Your task to perform on an android device: set default search engine in the chrome app Image 0: 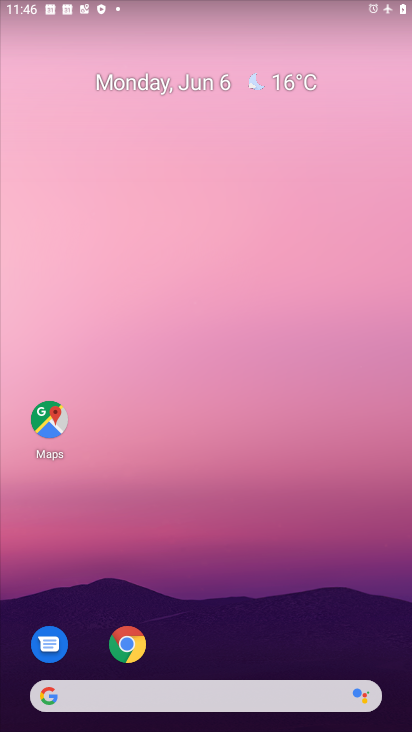
Step 0: drag from (264, 574) to (284, 111)
Your task to perform on an android device: set default search engine in the chrome app Image 1: 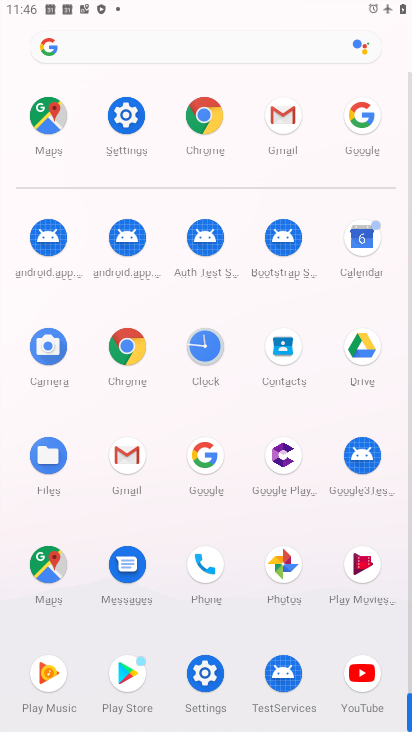
Step 1: click (136, 360)
Your task to perform on an android device: set default search engine in the chrome app Image 2: 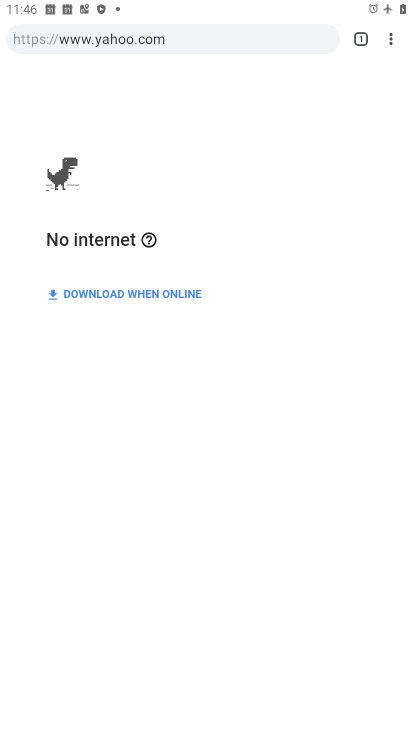
Step 2: click (261, 386)
Your task to perform on an android device: set default search engine in the chrome app Image 3: 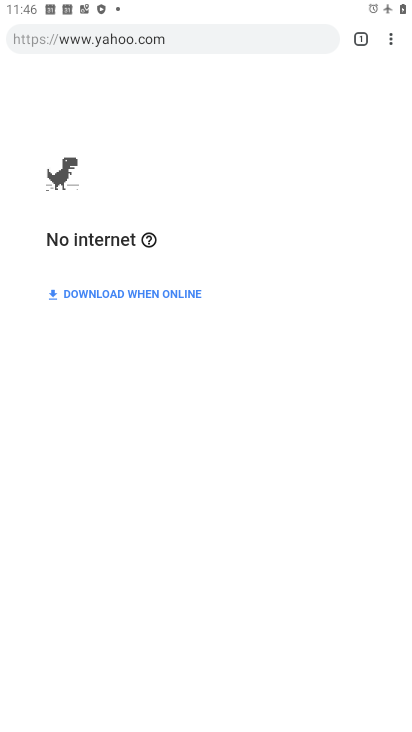
Step 3: click (392, 48)
Your task to perform on an android device: set default search engine in the chrome app Image 4: 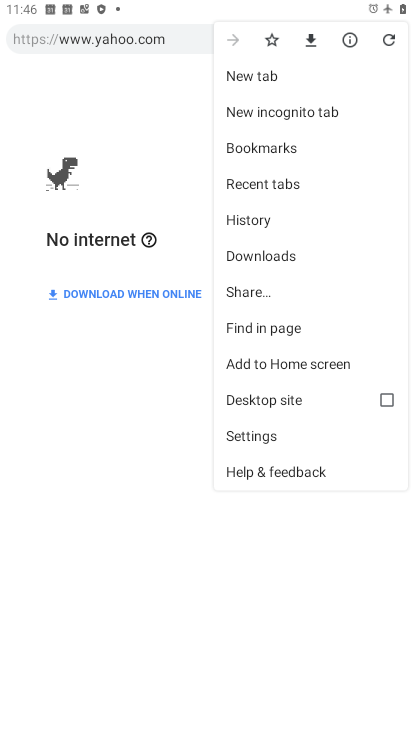
Step 4: click (271, 436)
Your task to perform on an android device: set default search engine in the chrome app Image 5: 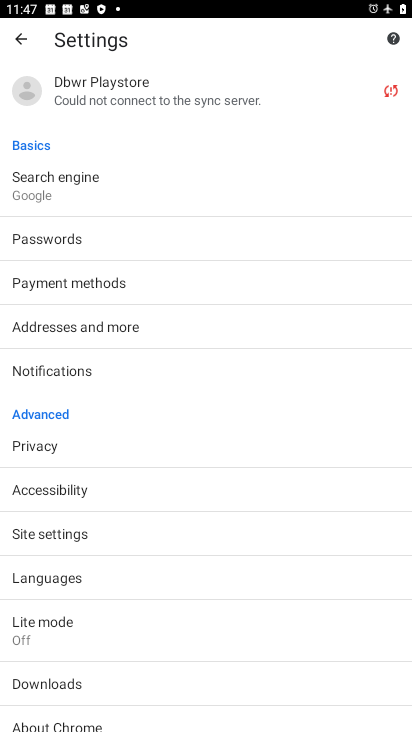
Step 5: click (95, 183)
Your task to perform on an android device: set default search engine in the chrome app Image 6: 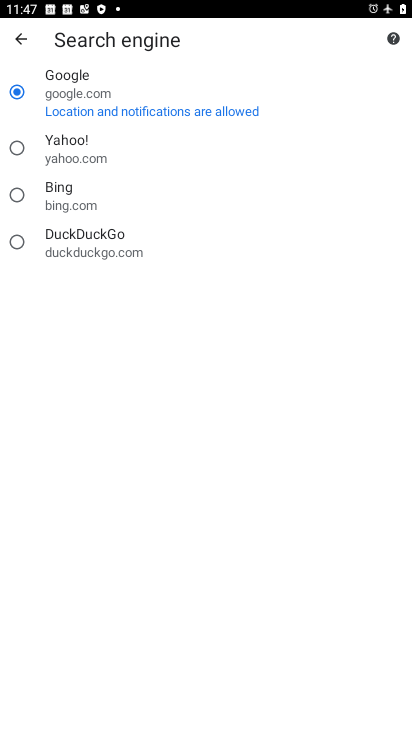
Step 6: task complete